Your task to perform on an android device: Open the stopwatch Image 0: 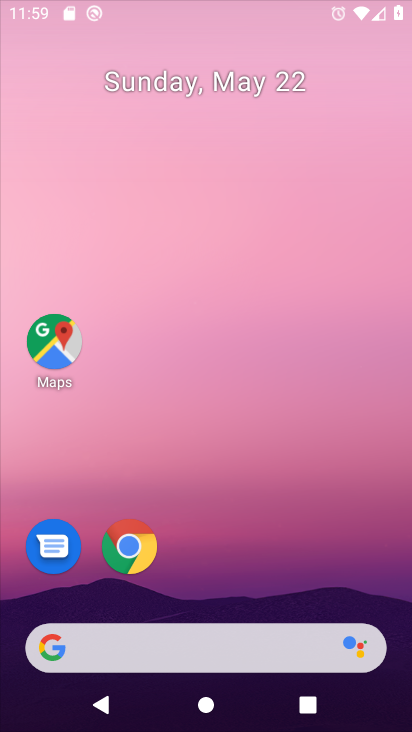
Step 0: drag from (297, 631) to (397, 101)
Your task to perform on an android device: Open the stopwatch Image 1: 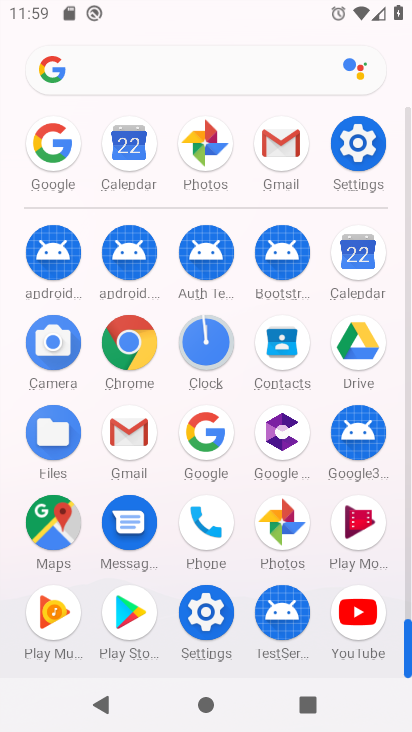
Step 1: click (215, 349)
Your task to perform on an android device: Open the stopwatch Image 2: 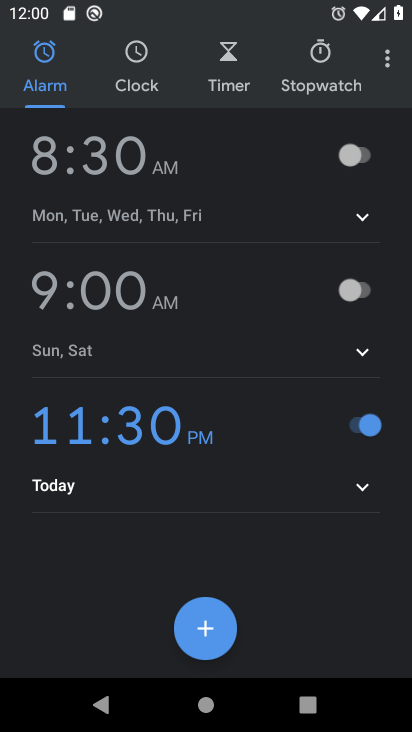
Step 2: click (321, 66)
Your task to perform on an android device: Open the stopwatch Image 3: 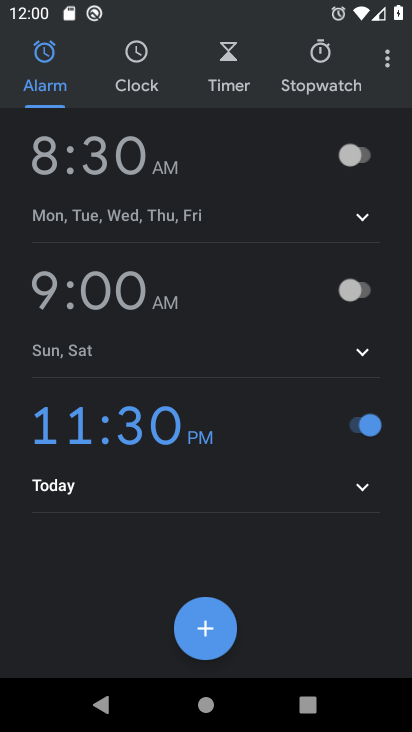
Step 3: click (331, 80)
Your task to perform on an android device: Open the stopwatch Image 4: 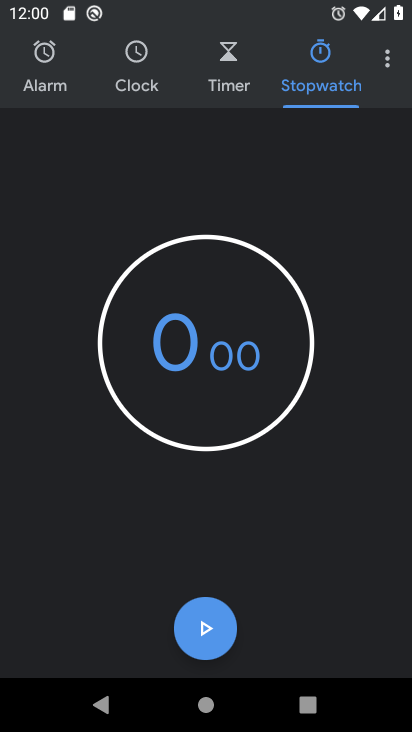
Step 4: task complete